Your task to perform on an android device: Search for alienware area 51 on ebay, select the first entry, add it to the cart, then select checkout. Image 0: 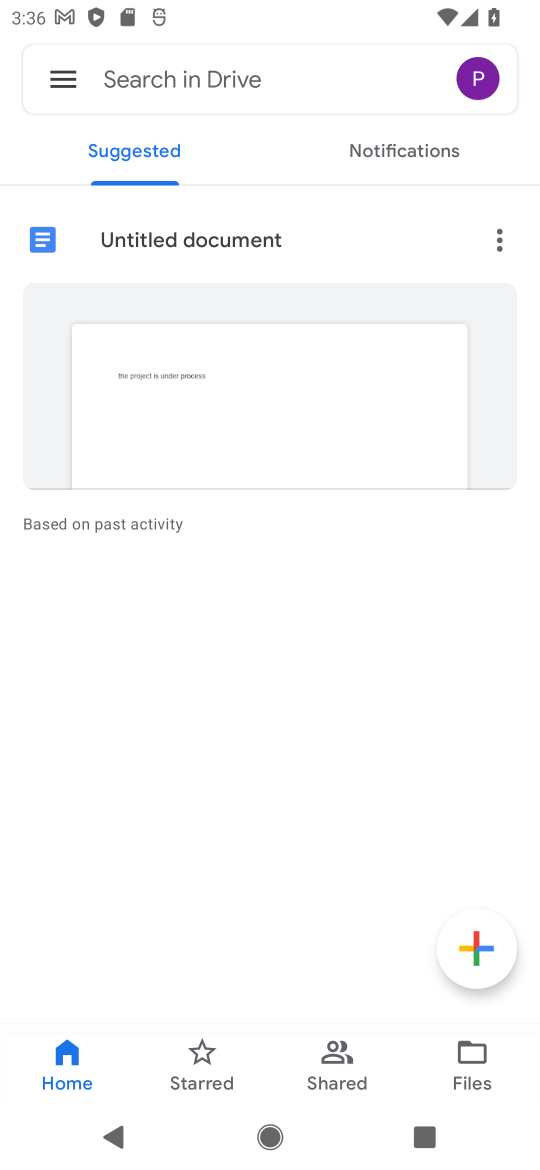
Step 0: press home button
Your task to perform on an android device: Search for alienware area 51 on ebay, select the first entry, add it to the cart, then select checkout. Image 1: 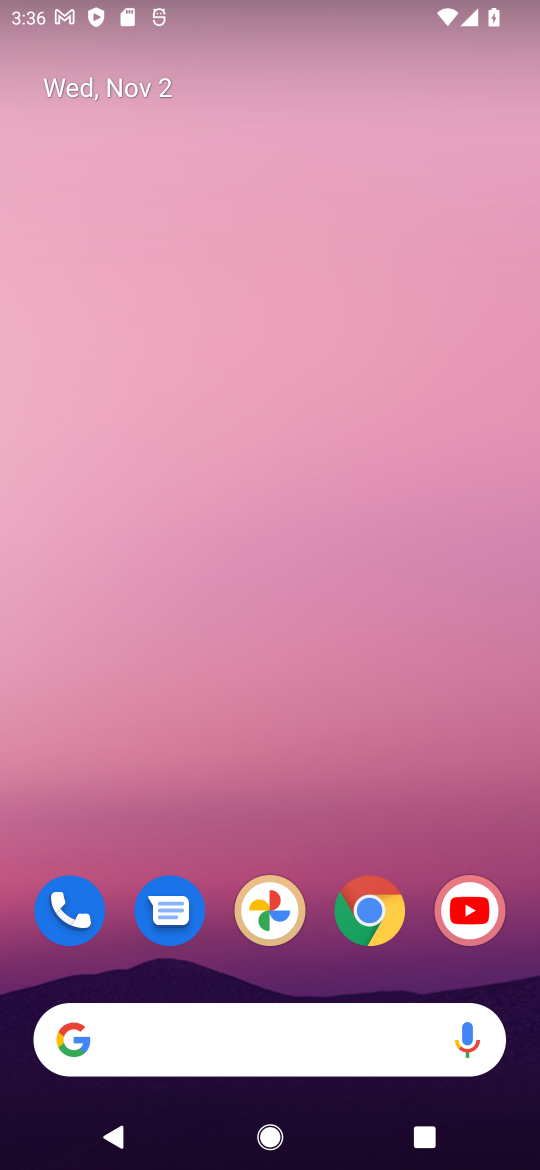
Step 1: click (363, 888)
Your task to perform on an android device: Search for alienware area 51 on ebay, select the first entry, add it to the cart, then select checkout. Image 2: 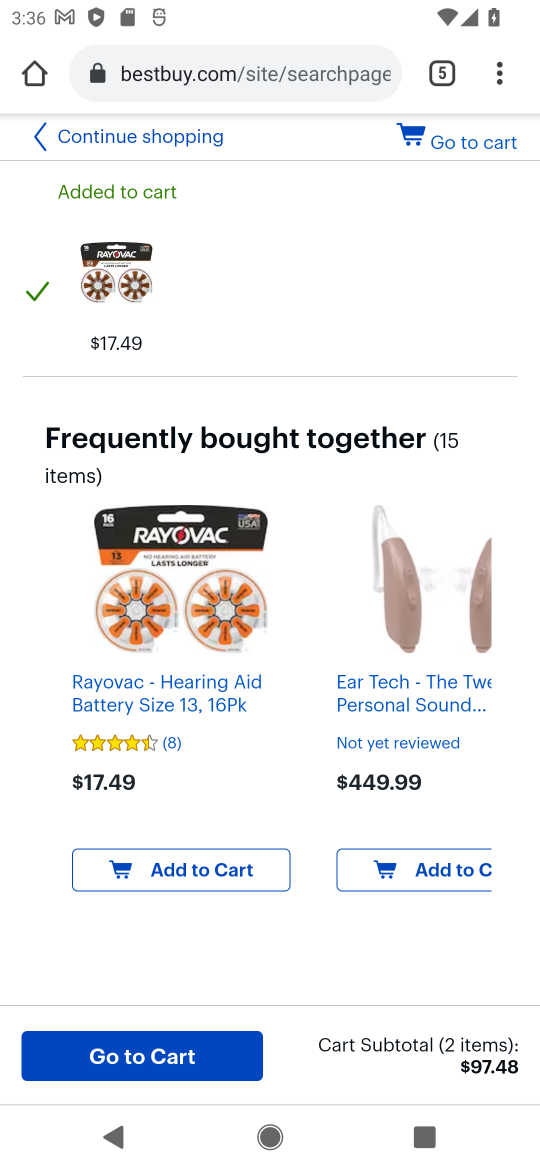
Step 2: click (452, 80)
Your task to perform on an android device: Search for alienware area 51 on ebay, select the first entry, add it to the cart, then select checkout. Image 3: 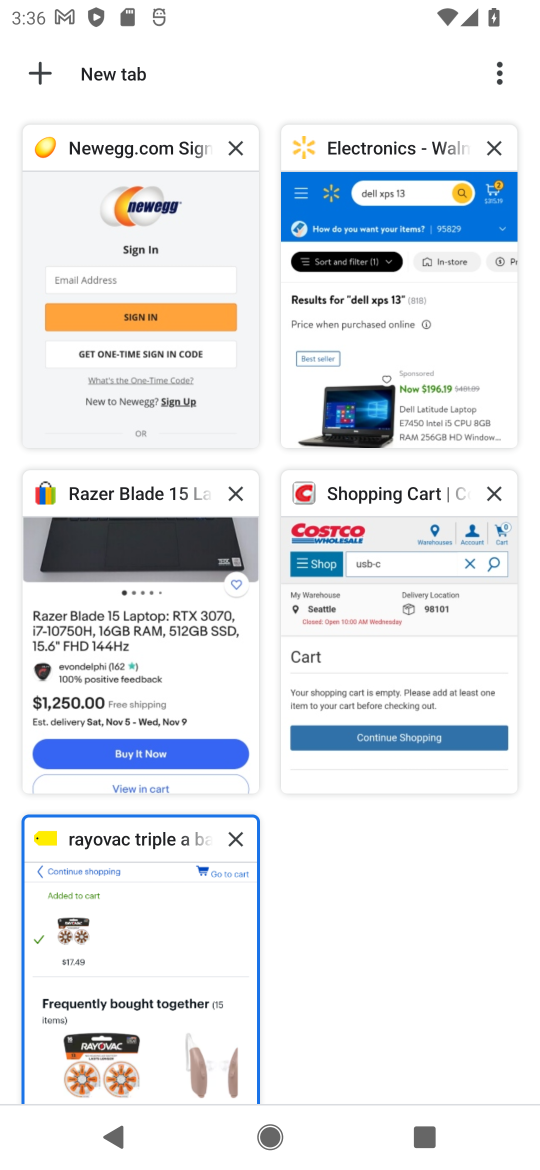
Step 3: click (163, 621)
Your task to perform on an android device: Search for alienware area 51 on ebay, select the first entry, add it to the cart, then select checkout. Image 4: 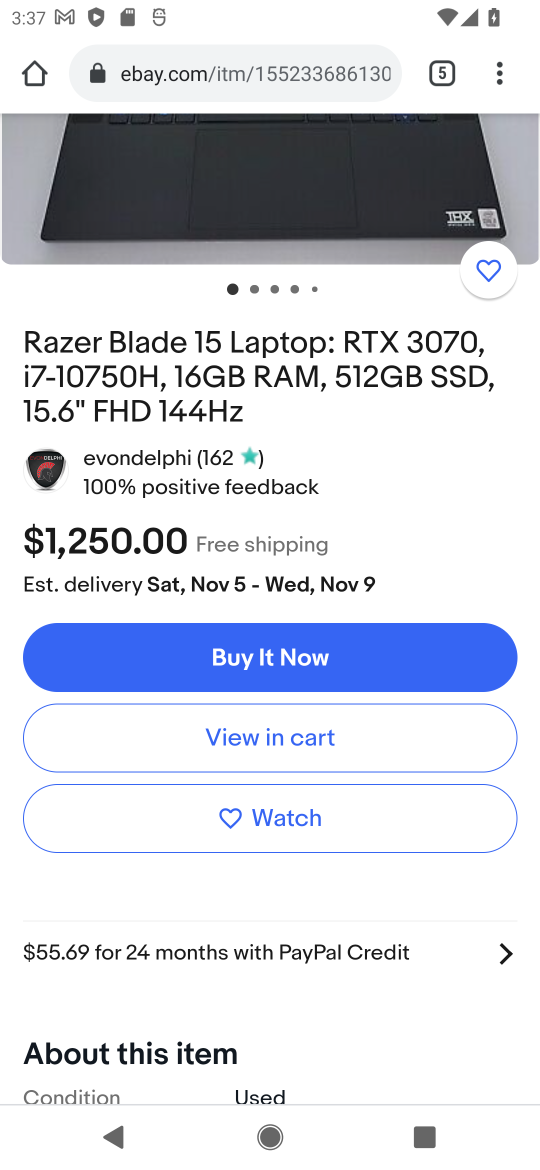
Step 4: drag from (436, 357) to (473, 1076)
Your task to perform on an android device: Search for alienware area 51 on ebay, select the first entry, add it to the cart, then select checkout. Image 5: 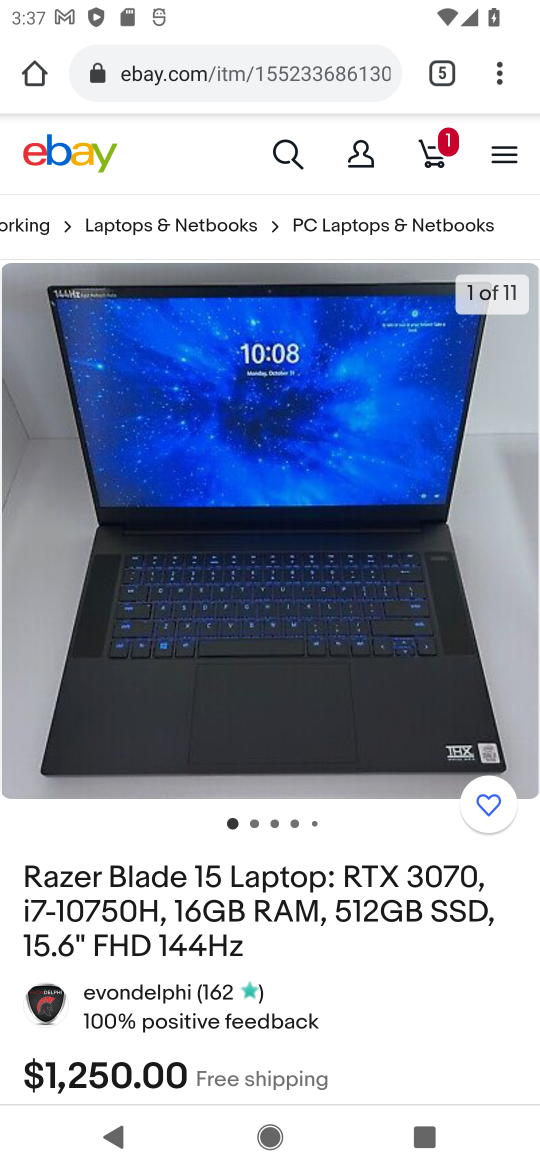
Step 5: click (290, 153)
Your task to perform on an android device: Search for alienware area 51 on ebay, select the first entry, add it to the cart, then select checkout. Image 6: 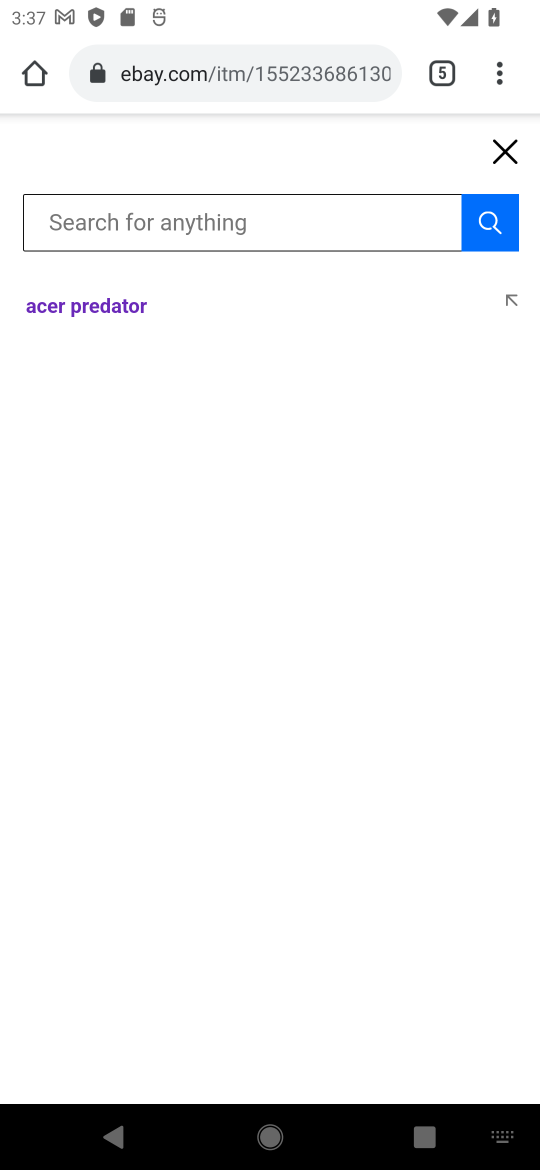
Step 6: type "alienware area 51"
Your task to perform on an android device: Search for alienware area 51 on ebay, select the first entry, add it to the cart, then select checkout. Image 7: 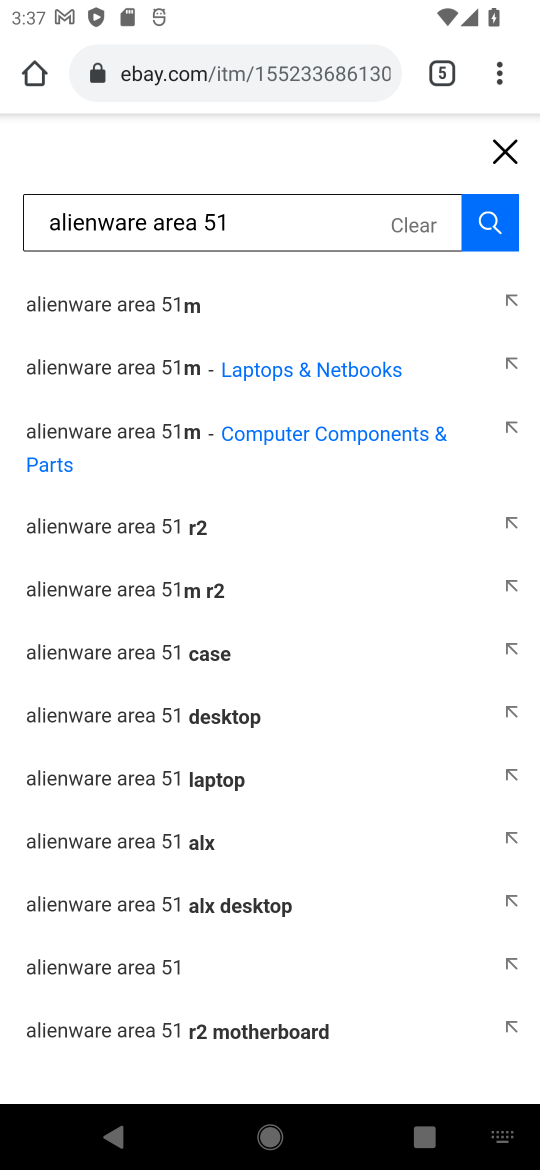
Step 7: click (92, 432)
Your task to perform on an android device: Search for alienware area 51 on ebay, select the first entry, add it to the cart, then select checkout. Image 8: 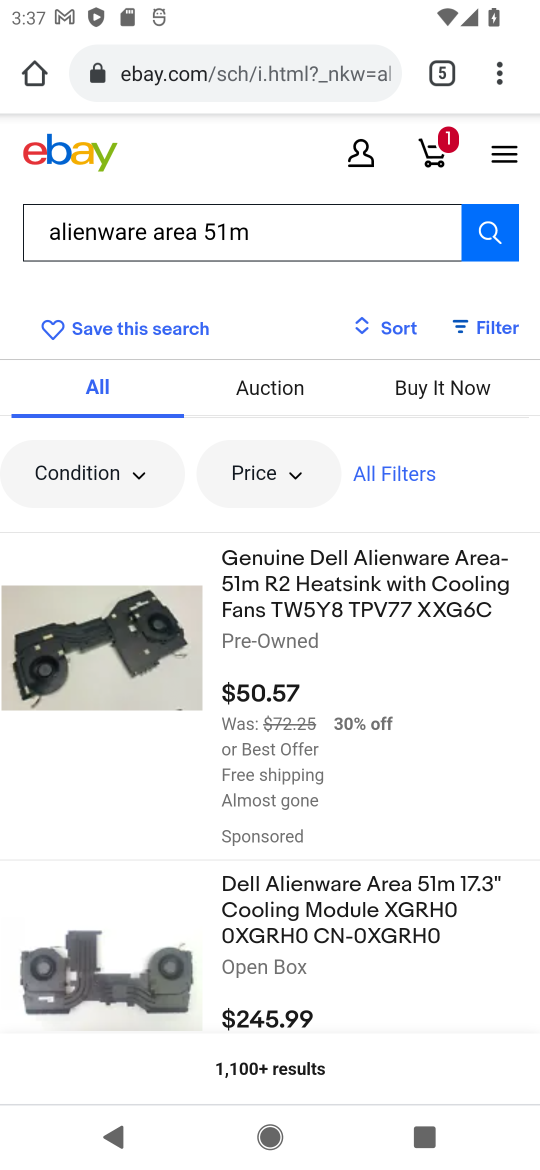
Step 8: click (292, 896)
Your task to perform on an android device: Search for alienware area 51 on ebay, select the first entry, add it to the cart, then select checkout. Image 9: 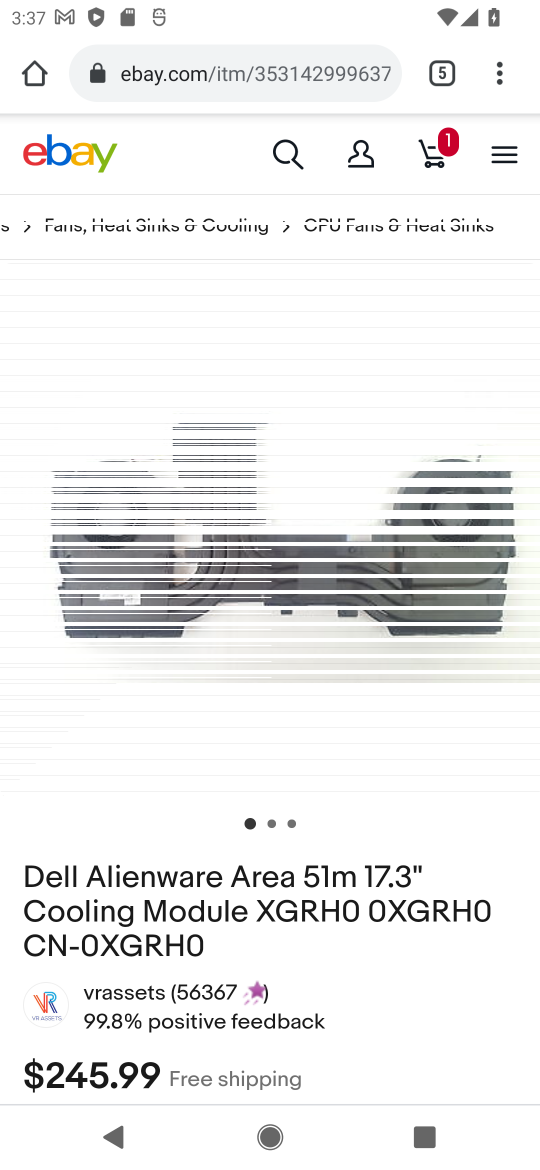
Step 9: drag from (217, 1019) to (323, 233)
Your task to perform on an android device: Search for alienware area 51 on ebay, select the first entry, add it to the cart, then select checkout. Image 10: 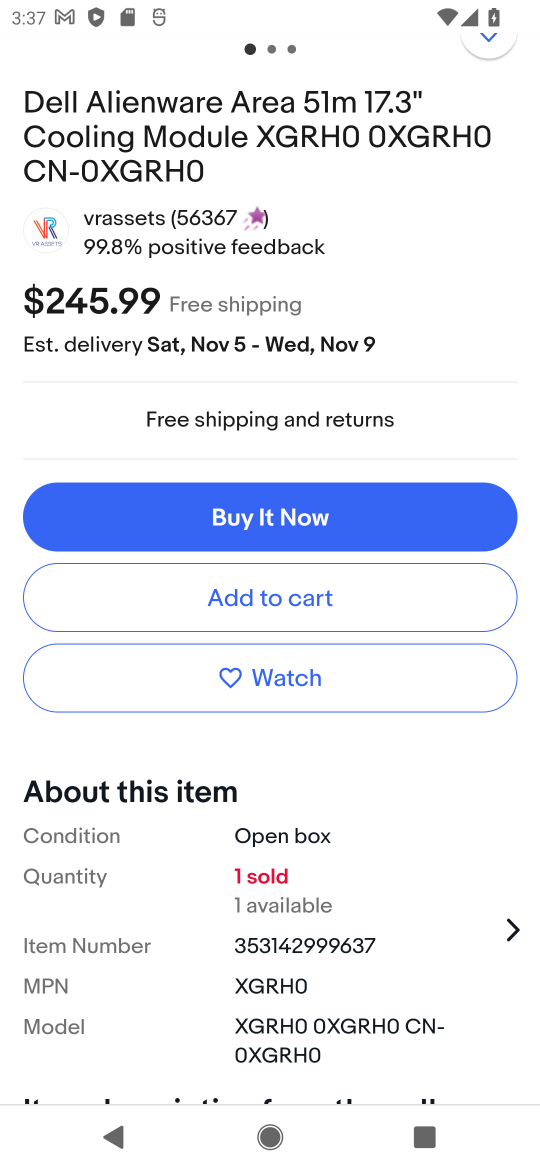
Step 10: click (283, 603)
Your task to perform on an android device: Search for alienware area 51 on ebay, select the first entry, add it to the cart, then select checkout. Image 11: 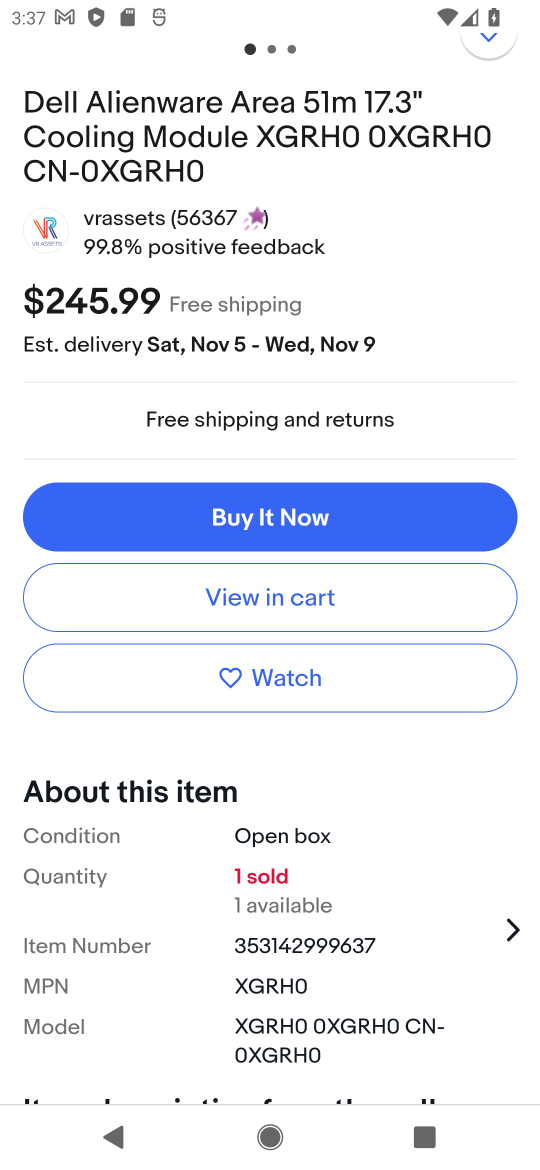
Step 11: click (283, 603)
Your task to perform on an android device: Search for alienware area 51 on ebay, select the first entry, add it to the cart, then select checkout. Image 12: 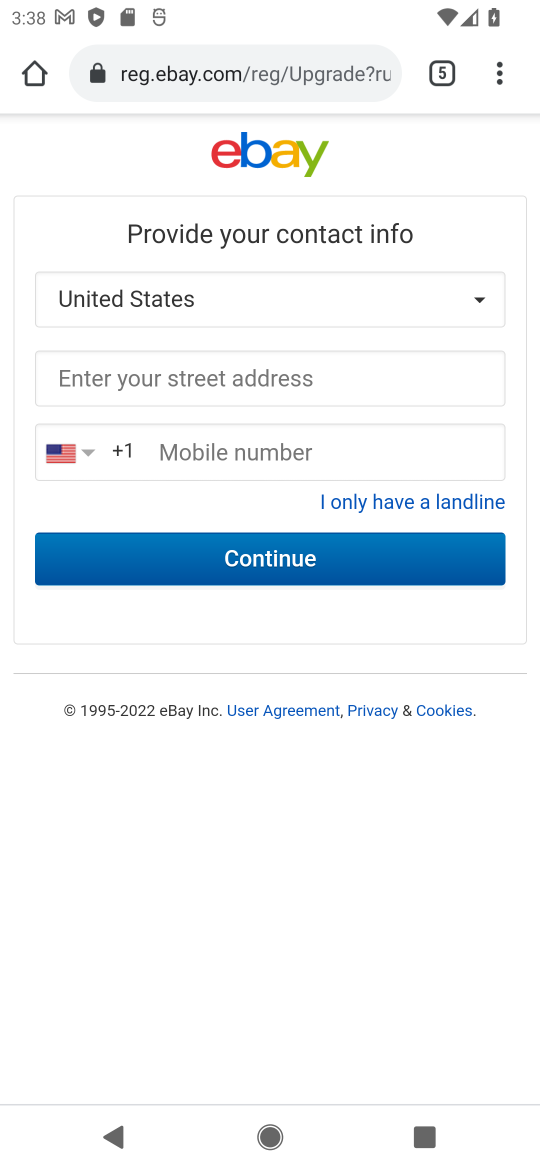
Step 12: task complete